Your task to perform on an android device: Open Yahoo.com Image 0: 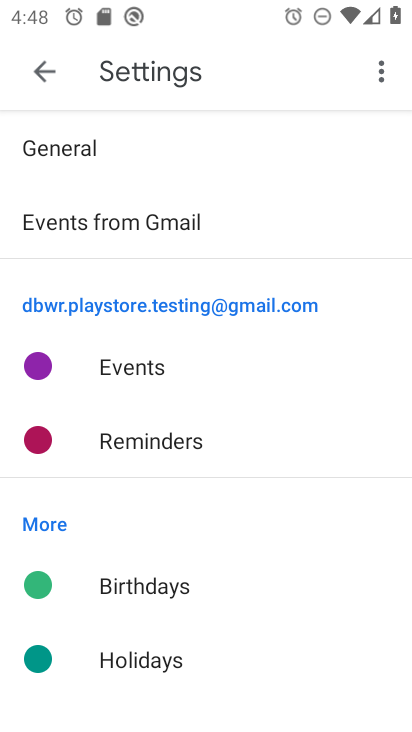
Step 0: press home button
Your task to perform on an android device: Open Yahoo.com Image 1: 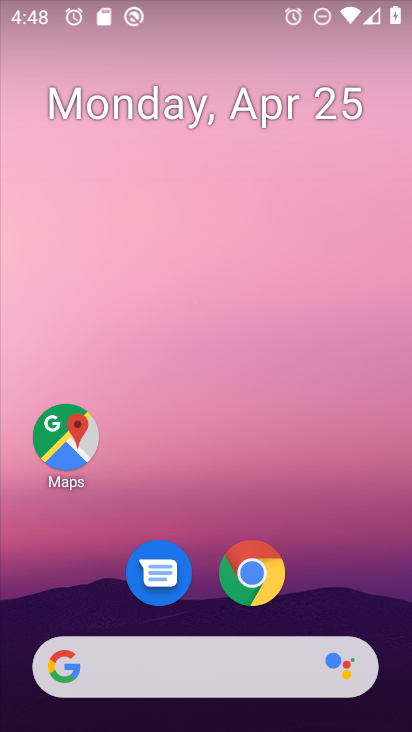
Step 1: click (243, 577)
Your task to perform on an android device: Open Yahoo.com Image 2: 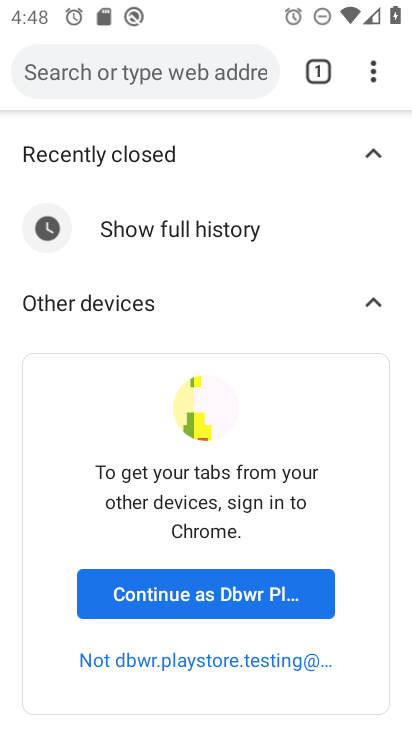
Step 2: click (208, 76)
Your task to perform on an android device: Open Yahoo.com Image 3: 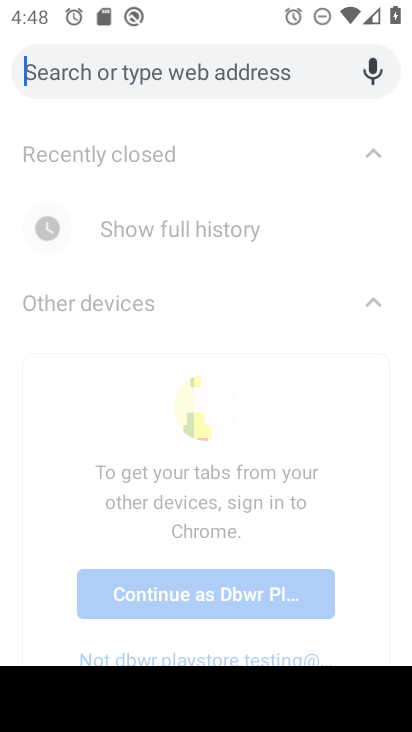
Step 3: type "yahoo.com"
Your task to perform on an android device: Open Yahoo.com Image 4: 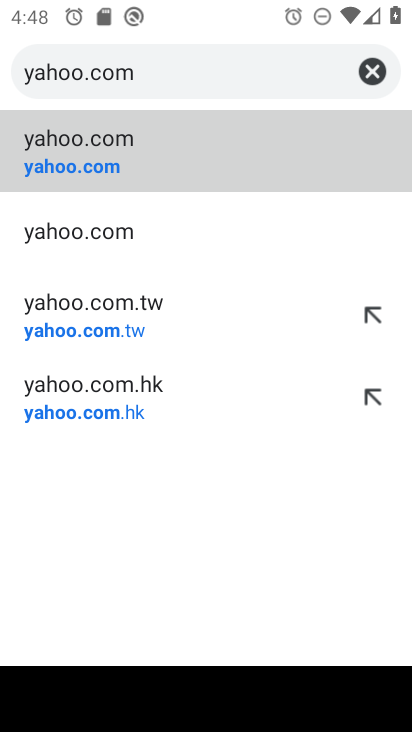
Step 4: click (66, 235)
Your task to perform on an android device: Open Yahoo.com Image 5: 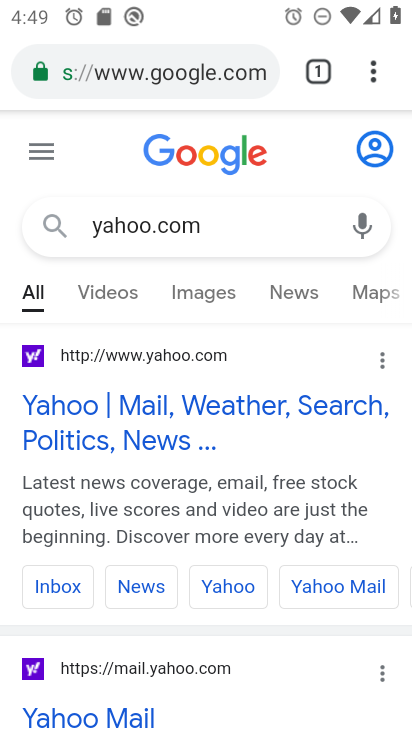
Step 5: click (69, 365)
Your task to perform on an android device: Open Yahoo.com Image 6: 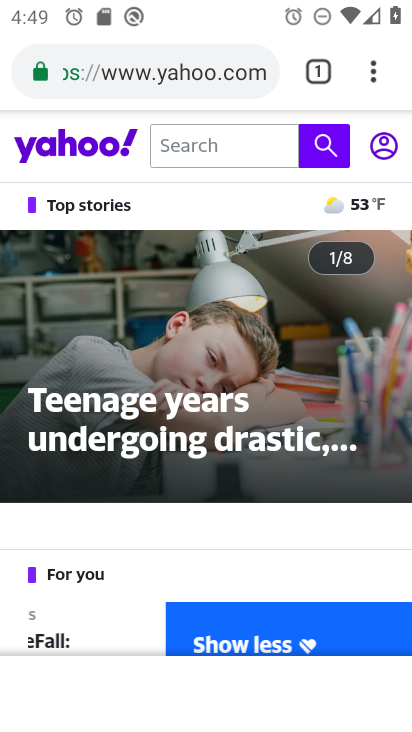
Step 6: task complete